Your task to perform on an android device: Go to internet settings Image 0: 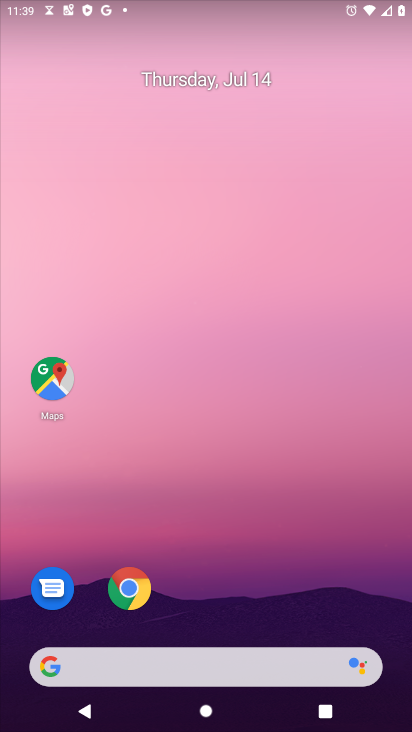
Step 0: press home button
Your task to perform on an android device: Go to internet settings Image 1: 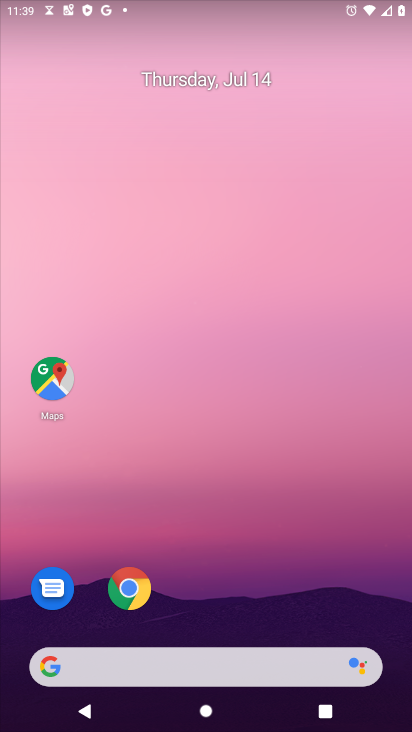
Step 1: drag from (131, 667) to (202, 152)
Your task to perform on an android device: Go to internet settings Image 2: 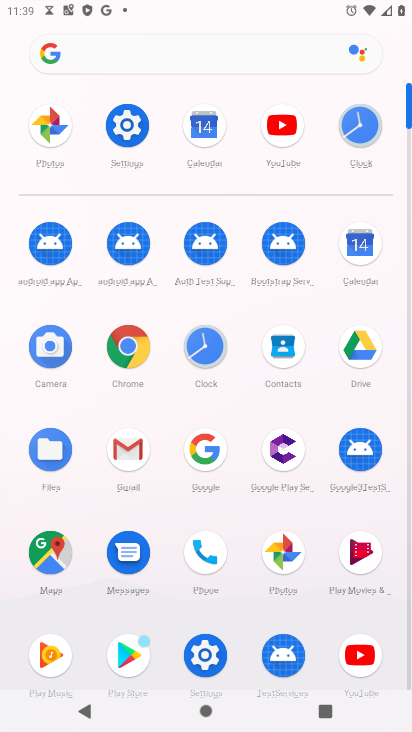
Step 2: click (122, 134)
Your task to perform on an android device: Go to internet settings Image 3: 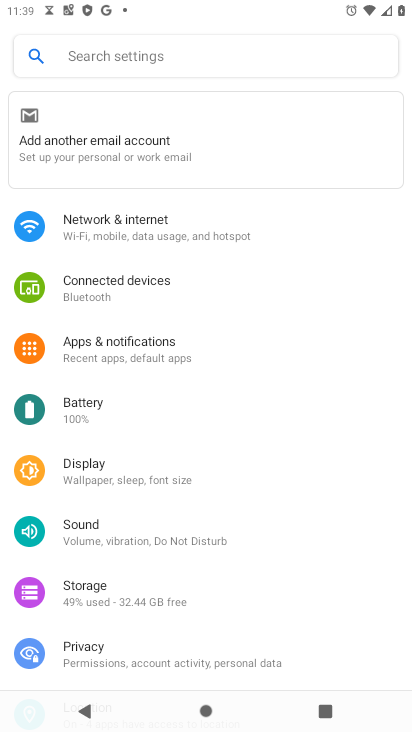
Step 3: click (123, 227)
Your task to perform on an android device: Go to internet settings Image 4: 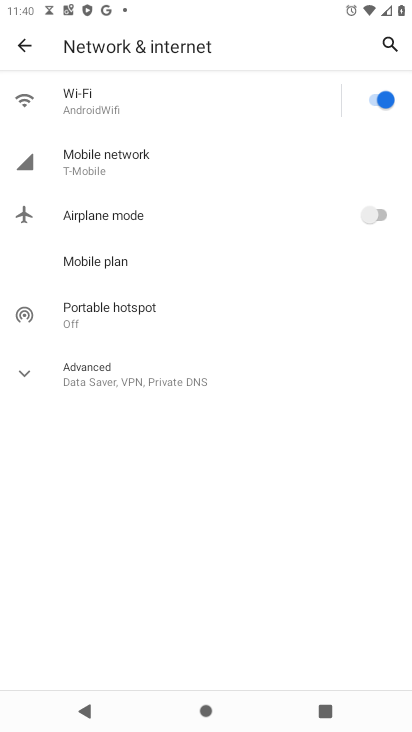
Step 4: task complete